Your task to perform on an android device: open sync settings in chrome Image 0: 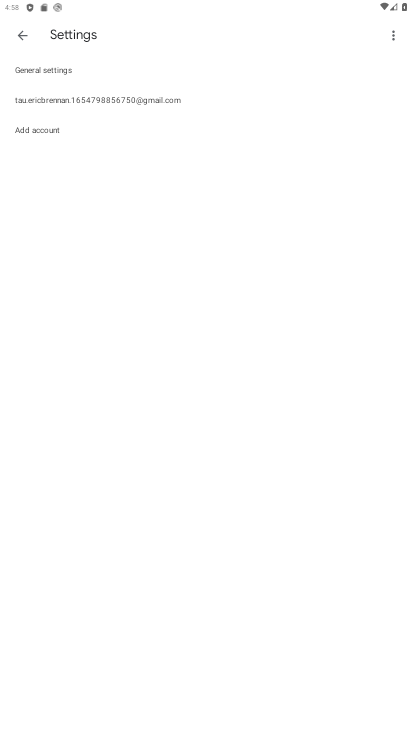
Step 0: press home button
Your task to perform on an android device: open sync settings in chrome Image 1: 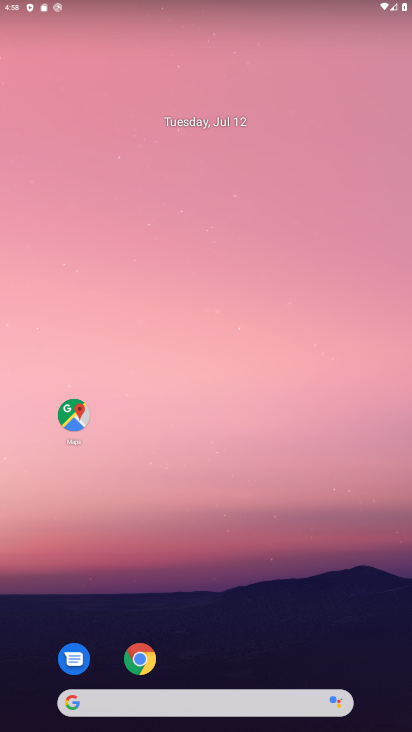
Step 1: click (142, 660)
Your task to perform on an android device: open sync settings in chrome Image 2: 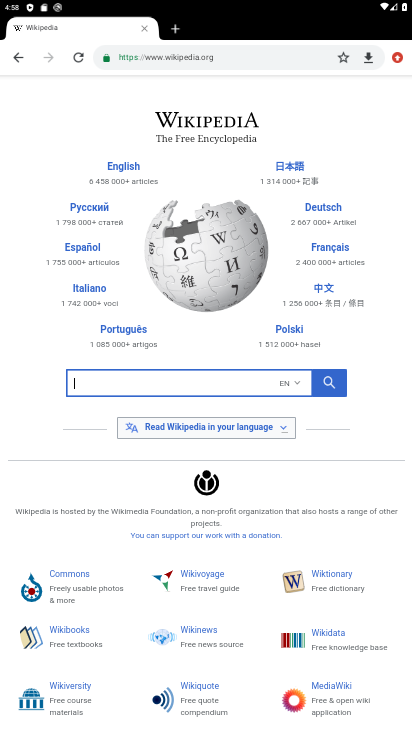
Step 2: click (396, 57)
Your task to perform on an android device: open sync settings in chrome Image 3: 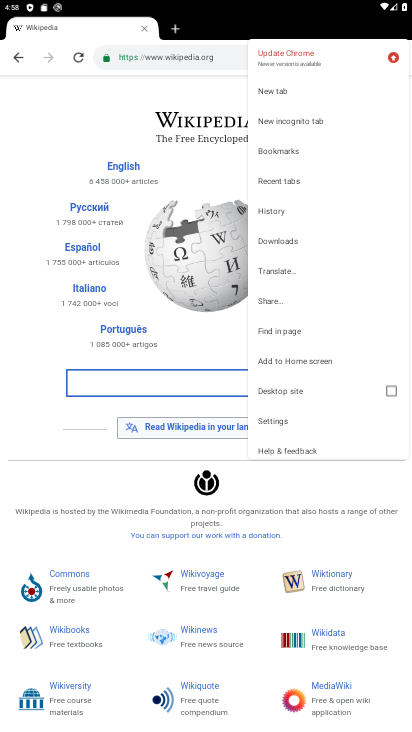
Step 3: click (280, 420)
Your task to perform on an android device: open sync settings in chrome Image 4: 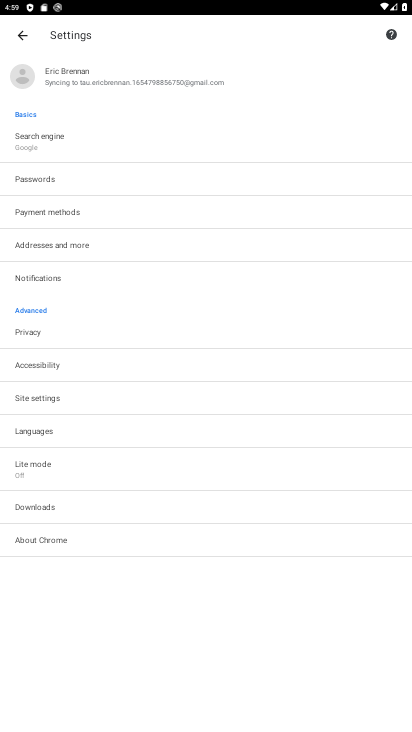
Step 4: click (75, 78)
Your task to perform on an android device: open sync settings in chrome Image 5: 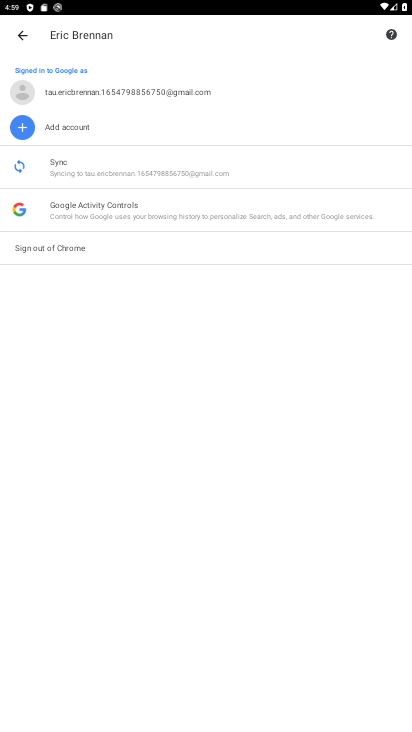
Step 5: click (62, 171)
Your task to perform on an android device: open sync settings in chrome Image 6: 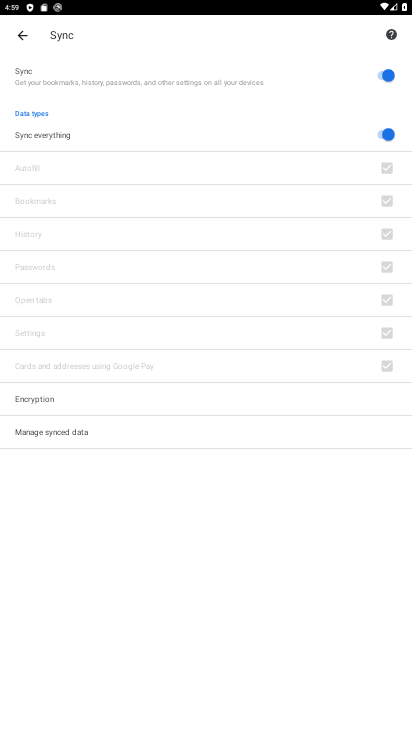
Step 6: task complete